Your task to perform on an android device: Search for Mexican restaurants on Maps Image 0: 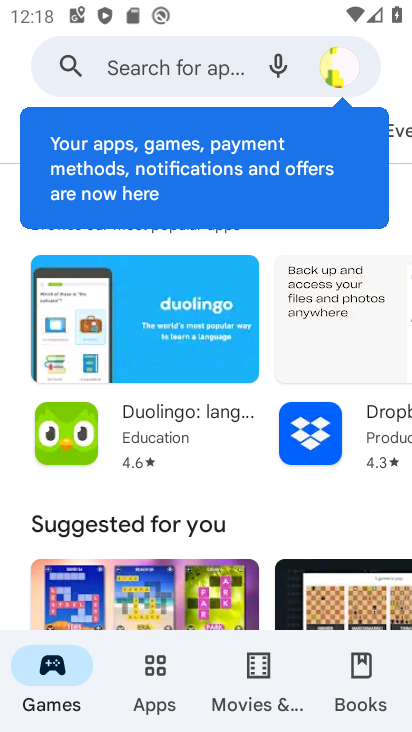
Step 0: press home button
Your task to perform on an android device: Search for Mexican restaurants on Maps Image 1: 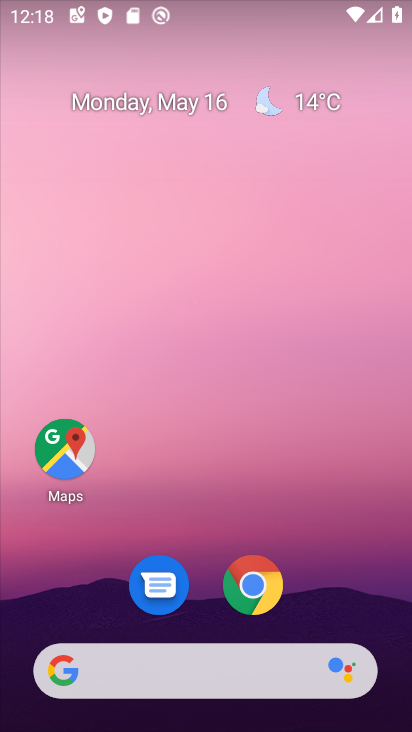
Step 1: click (66, 460)
Your task to perform on an android device: Search for Mexican restaurants on Maps Image 2: 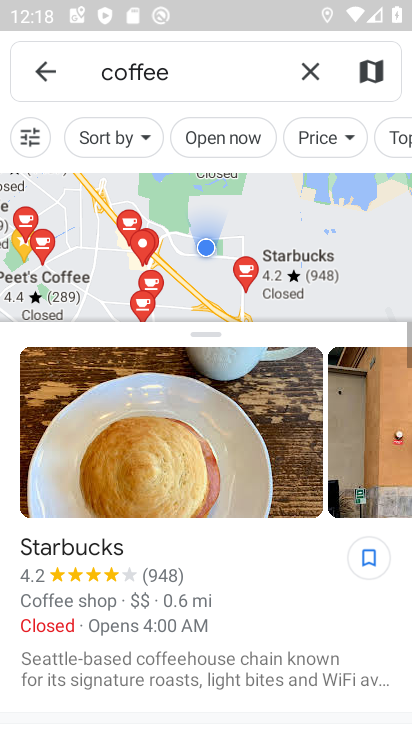
Step 2: click (308, 63)
Your task to perform on an android device: Search for Mexican restaurants on Maps Image 3: 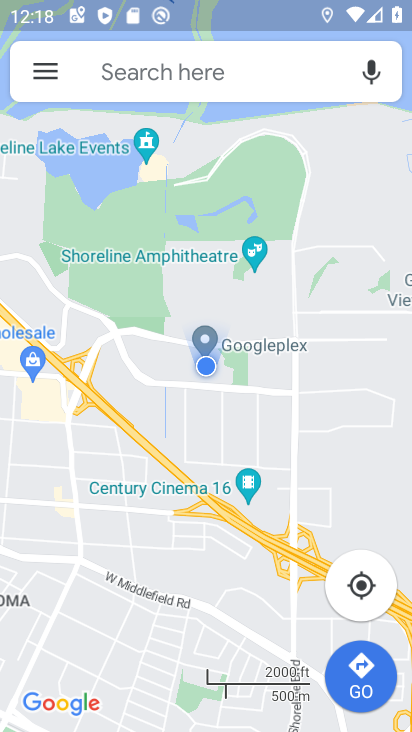
Step 3: click (155, 68)
Your task to perform on an android device: Search for Mexican restaurants on Maps Image 4: 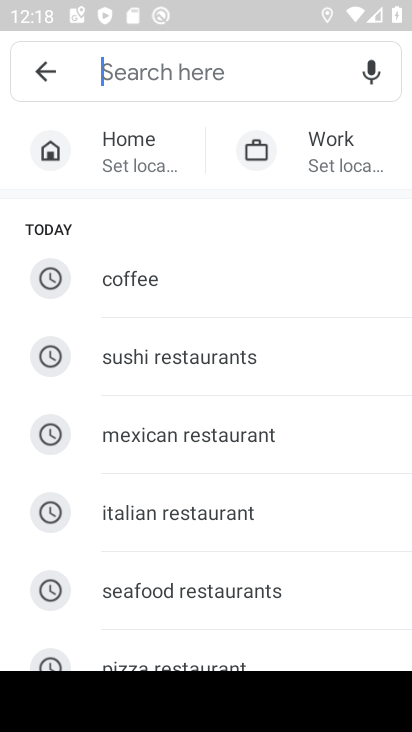
Step 4: click (219, 435)
Your task to perform on an android device: Search for Mexican restaurants on Maps Image 5: 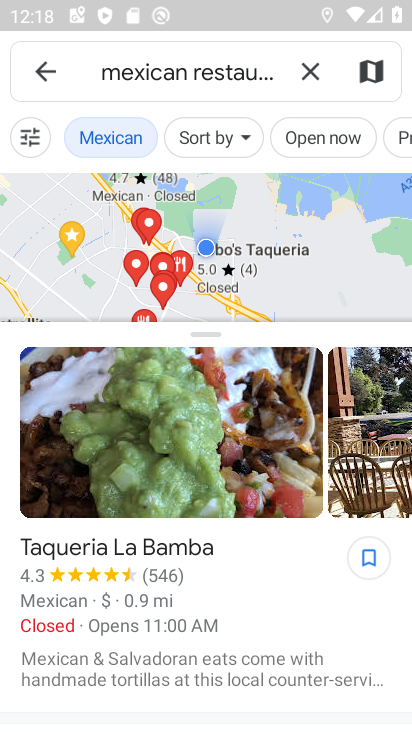
Step 5: task complete